Your task to perform on an android device: star an email in the gmail app Image 0: 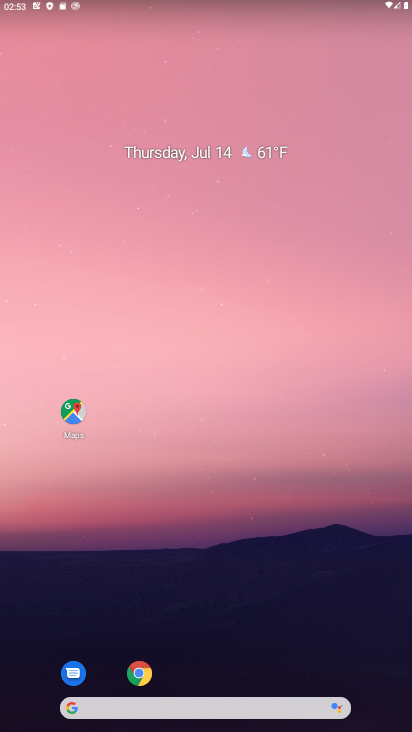
Step 0: drag from (245, 652) to (237, 281)
Your task to perform on an android device: star an email in the gmail app Image 1: 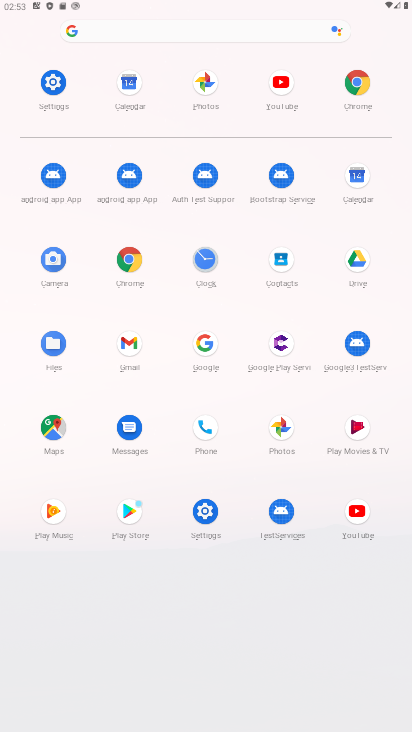
Step 1: click (136, 356)
Your task to perform on an android device: star an email in the gmail app Image 2: 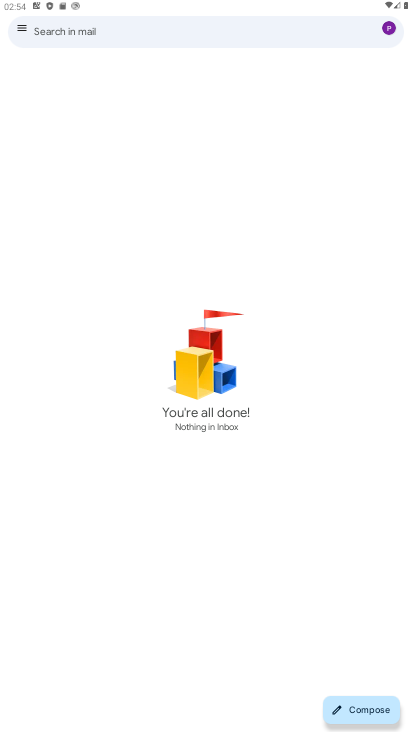
Step 2: click (19, 29)
Your task to perform on an android device: star an email in the gmail app Image 3: 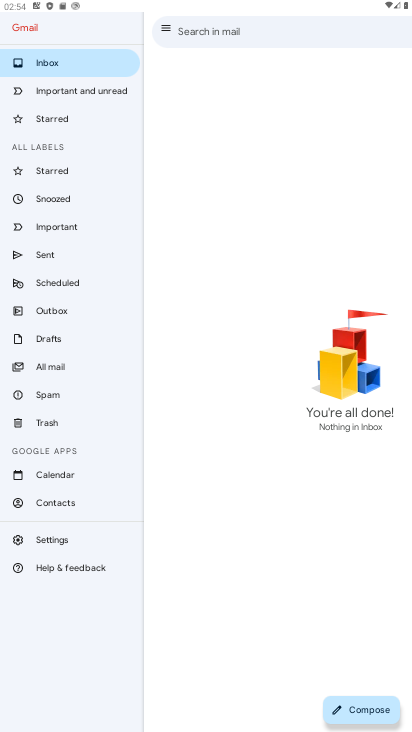
Step 3: click (69, 121)
Your task to perform on an android device: star an email in the gmail app Image 4: 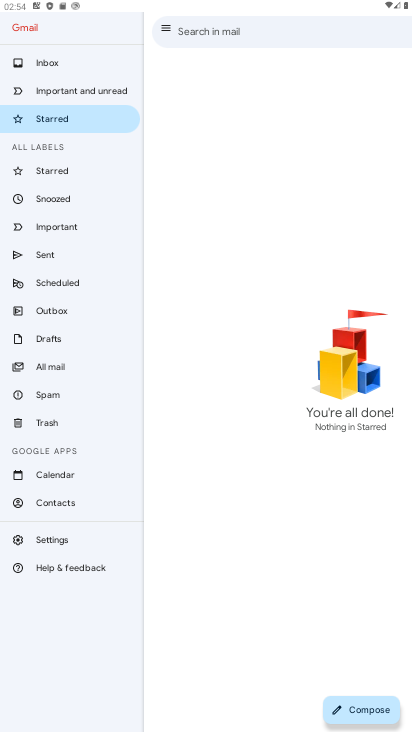
Step 4: task complete